Your task to perform on an android device: Go to CNN.com Image 0: 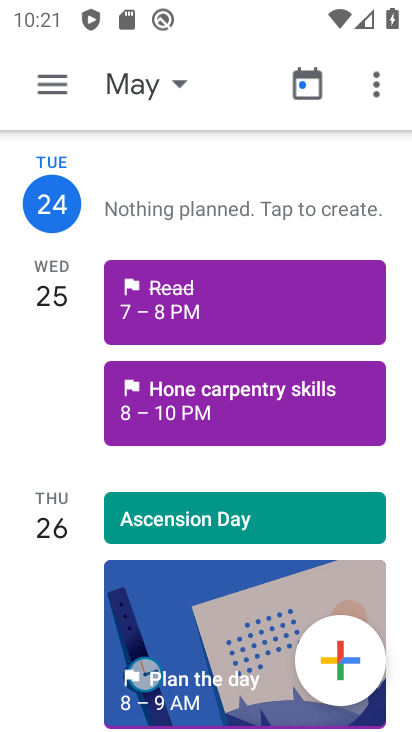
Step 0: press home button
Your task to perform on an android device: Go to CNN.com Image 1: 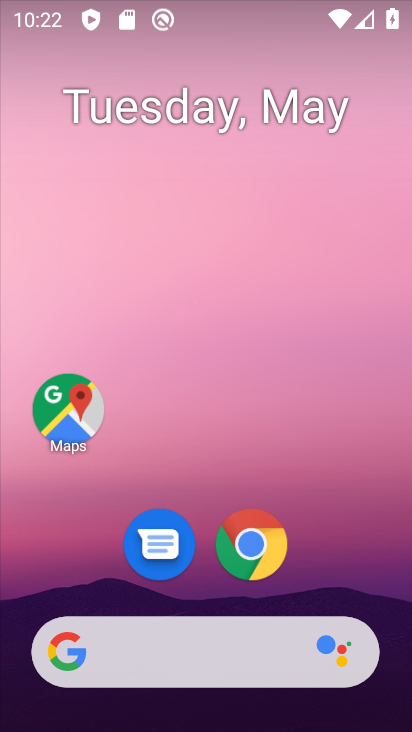
Step 1: click (275, 542)
Your task to perform on an android device: Go to CNN.com Image 2: 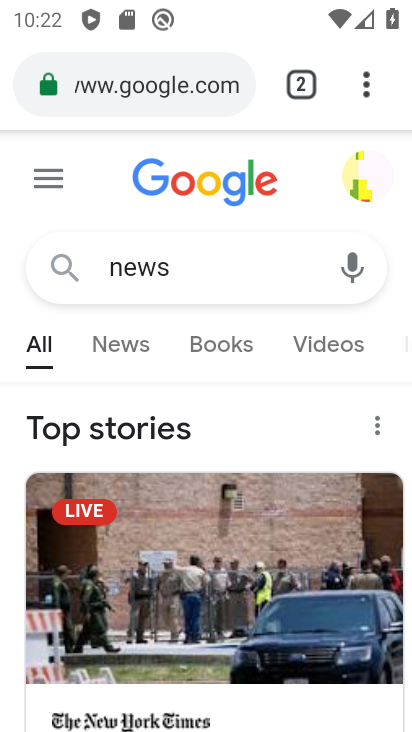
Step 2: click (171, 82)
Your task to perform on an android device: Go to CNN.com Image 3: 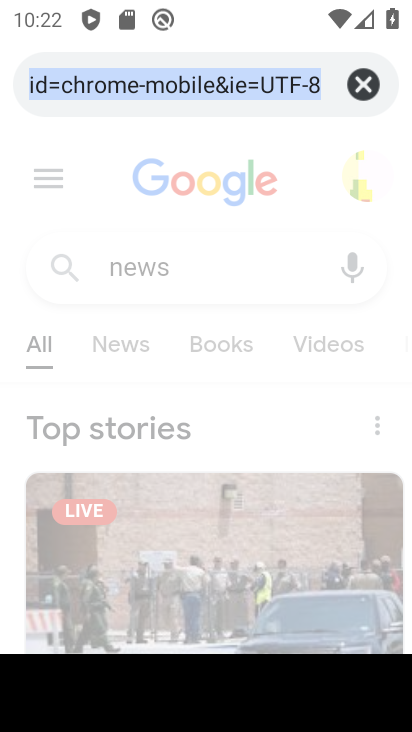
Step 3: type "cnn.com"
Your task to perform on an android device: Go to CNN.com Image 4: 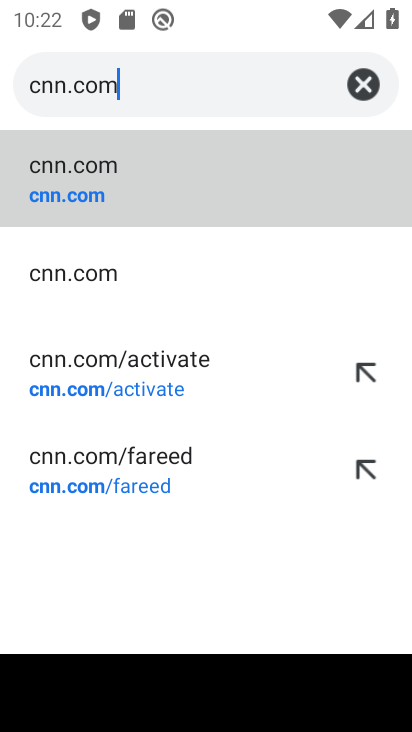
Step 4: click (58, 199)
Your task to perform on an android device: Go to CNN.com Image 5: 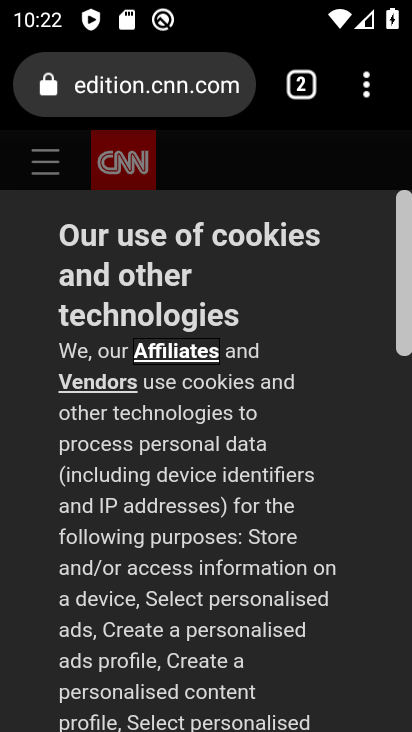
Step 5: task complete